Your task to perform on an android device: change the clock style Image 0: 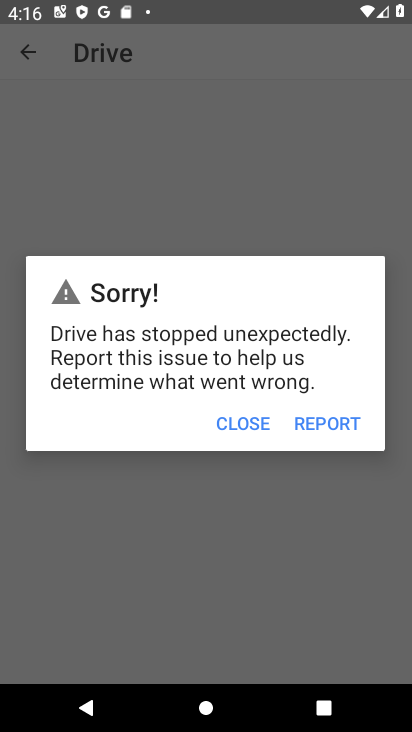
Step 0: press back button
Your task to perform on an android device: change the clock style Image 1: 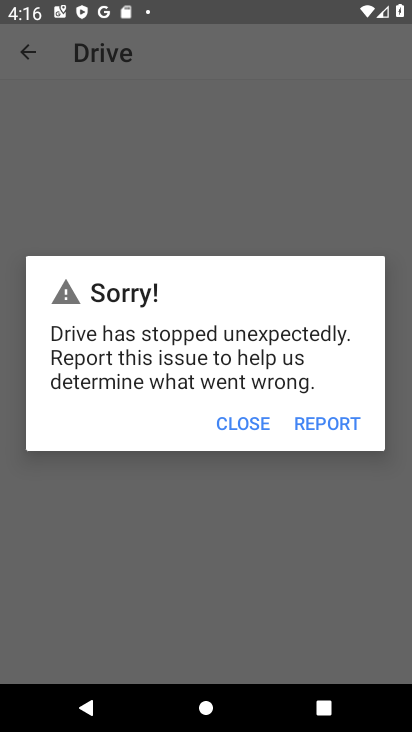
Step 1: press home button
Your task to perform on an android device: change the clock style Image 2: 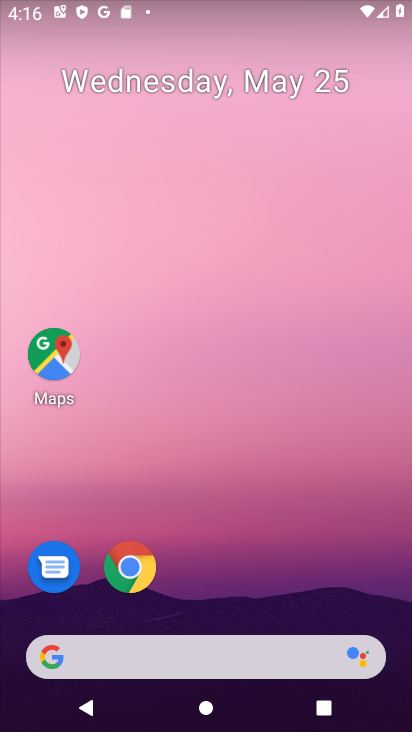
Step 2: drag from (227, 461) to (210, 52)
Your task to perform on an android device: change the clock style Image 3: 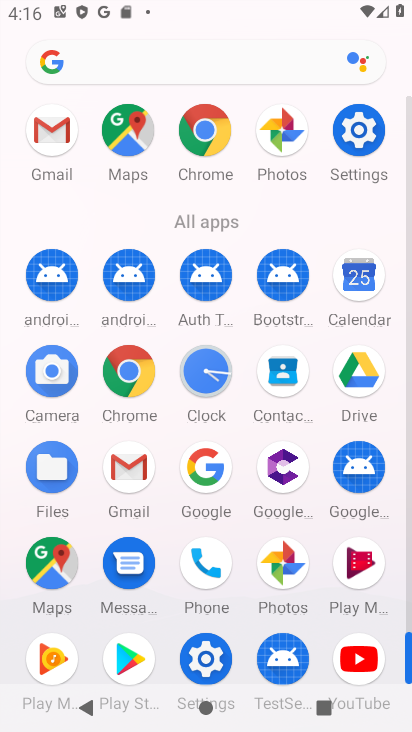
Step 3: drag from (9, 594) to (8, 275)
Your task to perform on an android device: change the clock style Image 4: 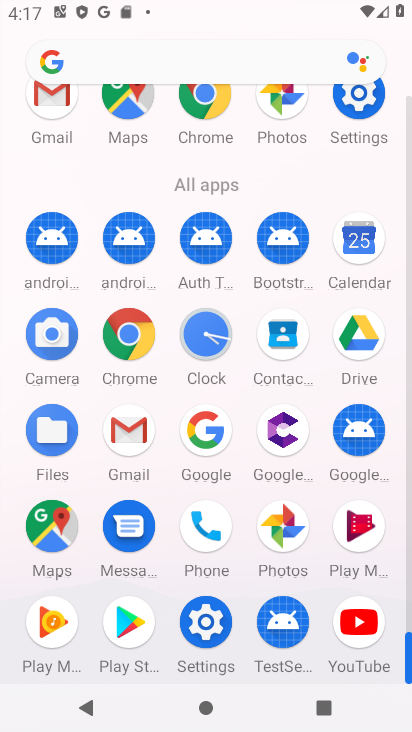
Step 4: click (203, 333)
Your task to perform on an android device: change the clock style Image 5: 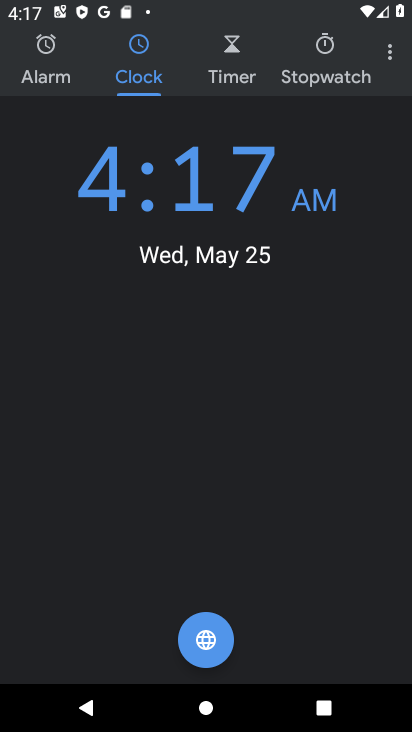
Step 5: click (390, 50)
Your task to perform on an android device: change the clock style Image 6: 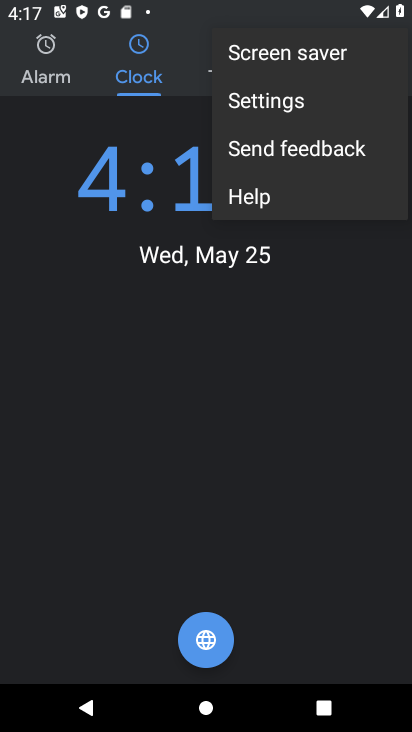
Step 6: click (293, 102)
Your task to perform on an android device: change the clock style Image 7: 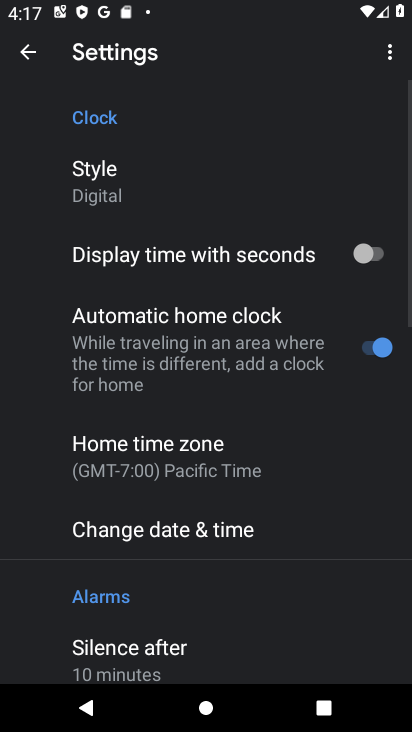
Step 7: click (156, 181)
Your task to perform on an android device: change the clock style Image 8: 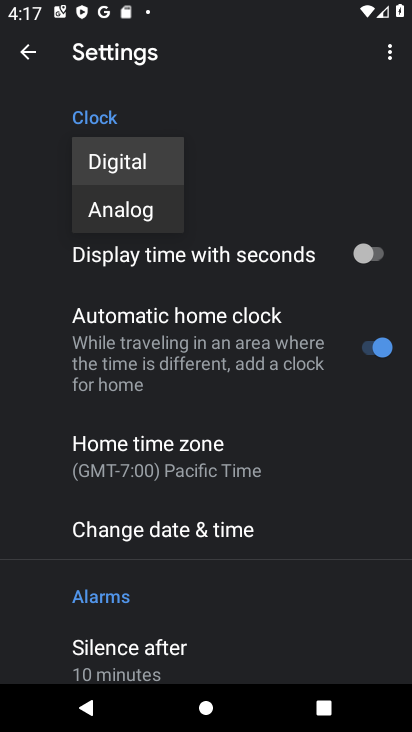
Step 8: click (131, 208)
Your task to perform on an android device: change the clock style Image 9: 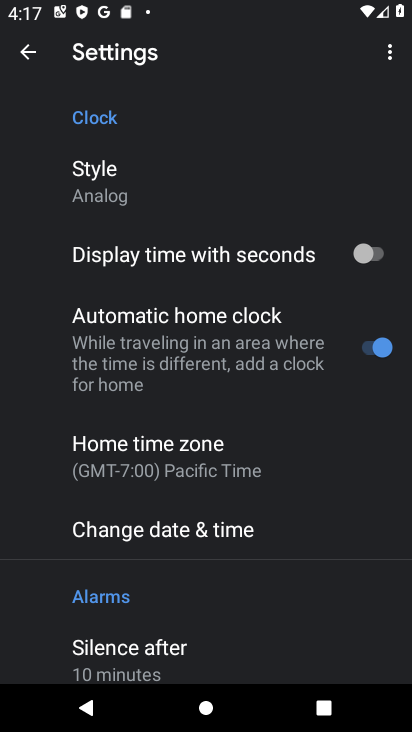
Step 9: task complete